Your task to perform on an android device: toggle wifi Image 0: 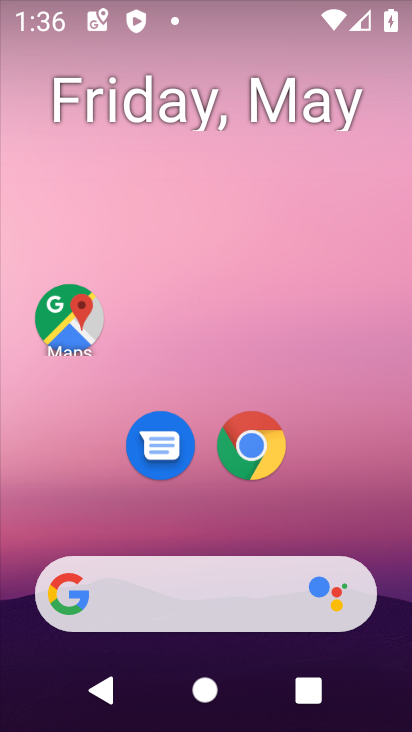
Step 0: drag from (228, 534) to (199, 2)
Your task to perform on an android device: toggle wifi Image 1: 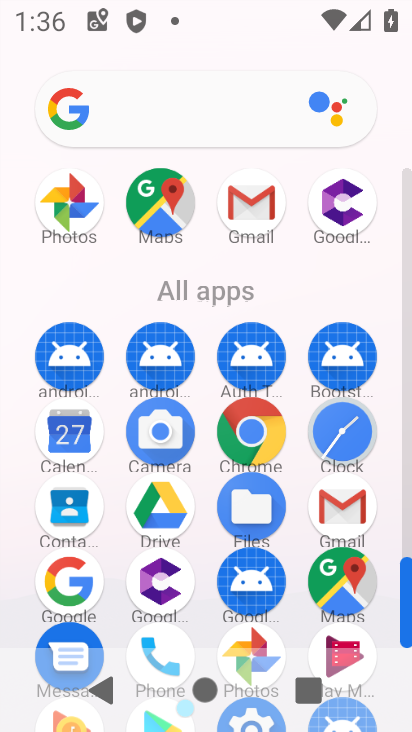
Step 1: drag from (213, 618) to (228, 157)
Your task to perform on an android device: toggle wifi Image 2: 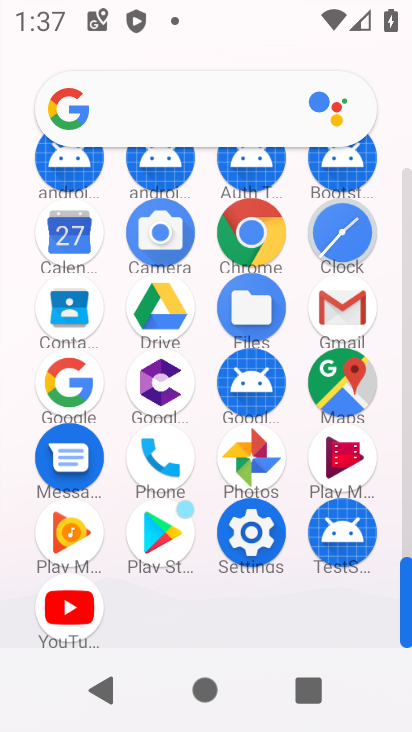
Step 2: click (248, 525)
Your task to perform on an android device: toggle wifi Image 3: 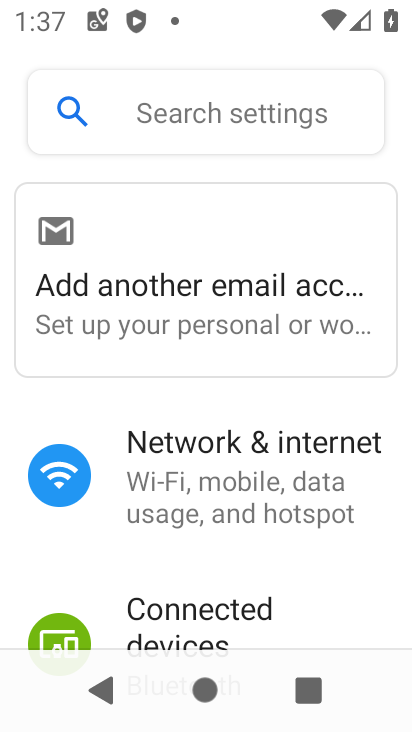
Step 3: click (227, 485)
Your task to perform on an android device: toggle wifi Image 4: 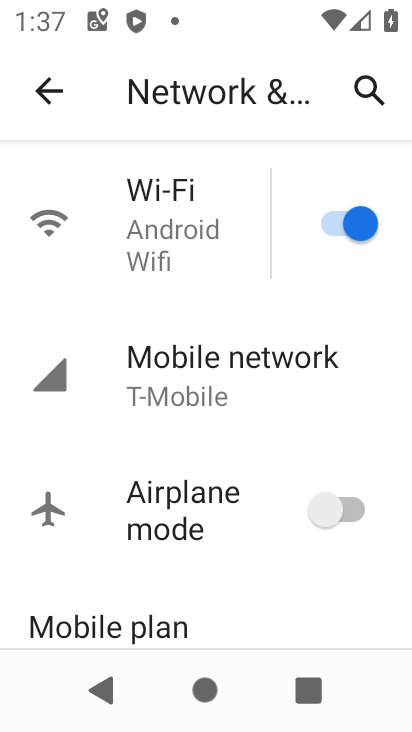
Step 4: click (231, 216)
Your task to perform on an android device: toggle wifi Image 5: 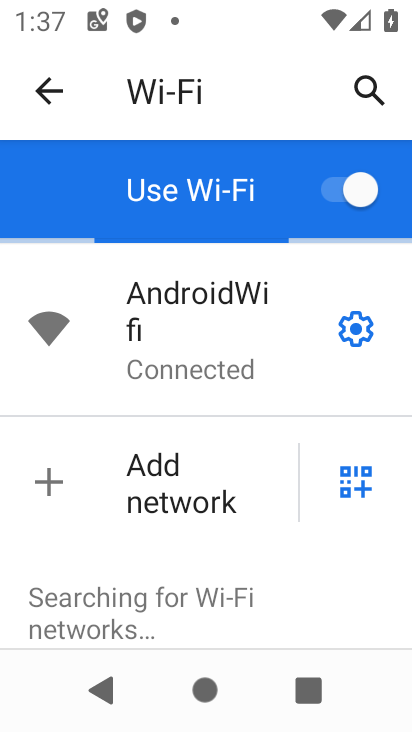
Step 5: click (343, 183)
Your task to perform on an android device: toggle wifi Image 6: 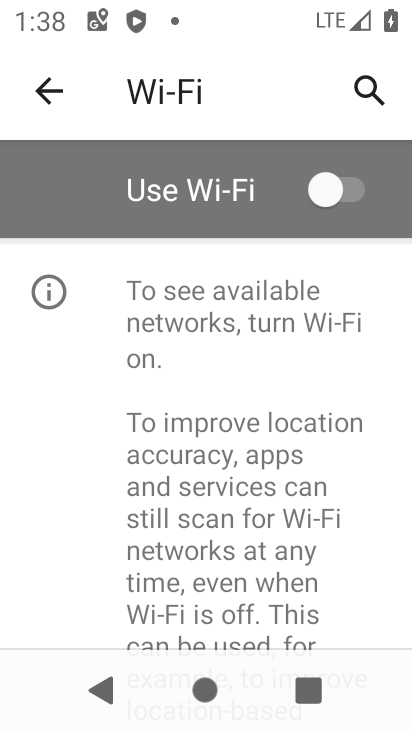
Step 6: task complete